Your task to perform on an android device: Clear the cart on target.com. Search for "corsair k70" on target.com, select the first entry, and add it to the cart. Image 0: 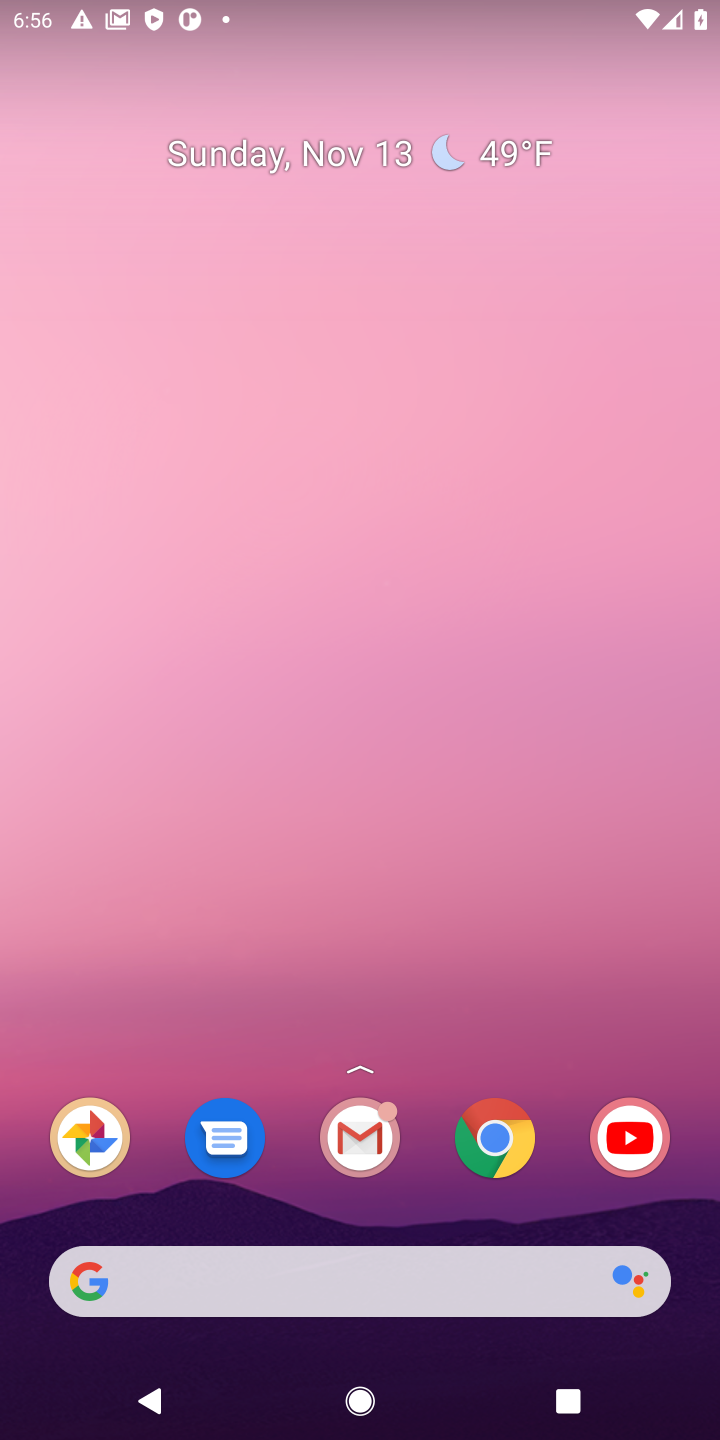
Step 0: drag from (390, 920) to (281, 336)
Your task to perform on an android device: Clear the cart on target.com. Search for "corsair k70" on target.com, select the first entry, and add it to the cart. Image 1: 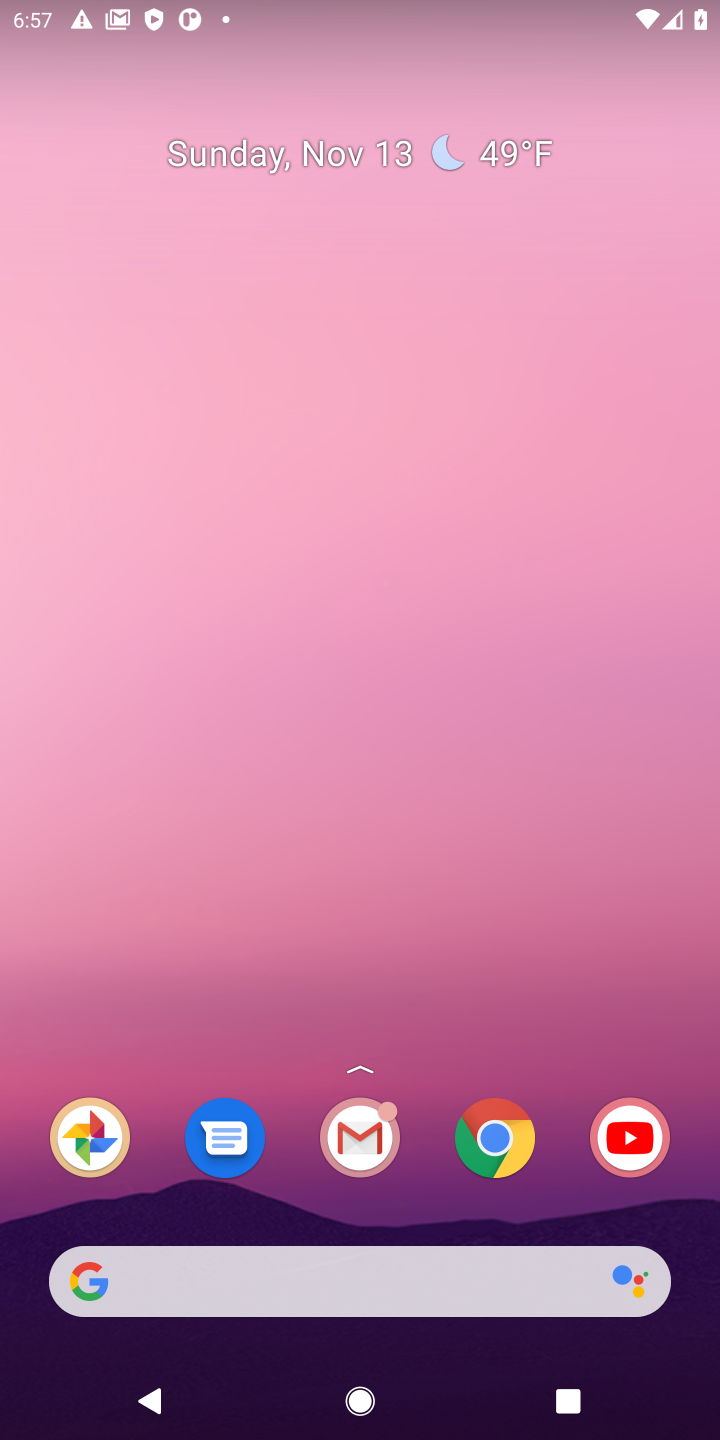
Step 1: drag from (478, 877) to (273, 2)
Your task to perform on an android device: Clear the cart on target.com. Search for "corsair k70" on target.com, select the first entry, and add it to the cart. Image 2: 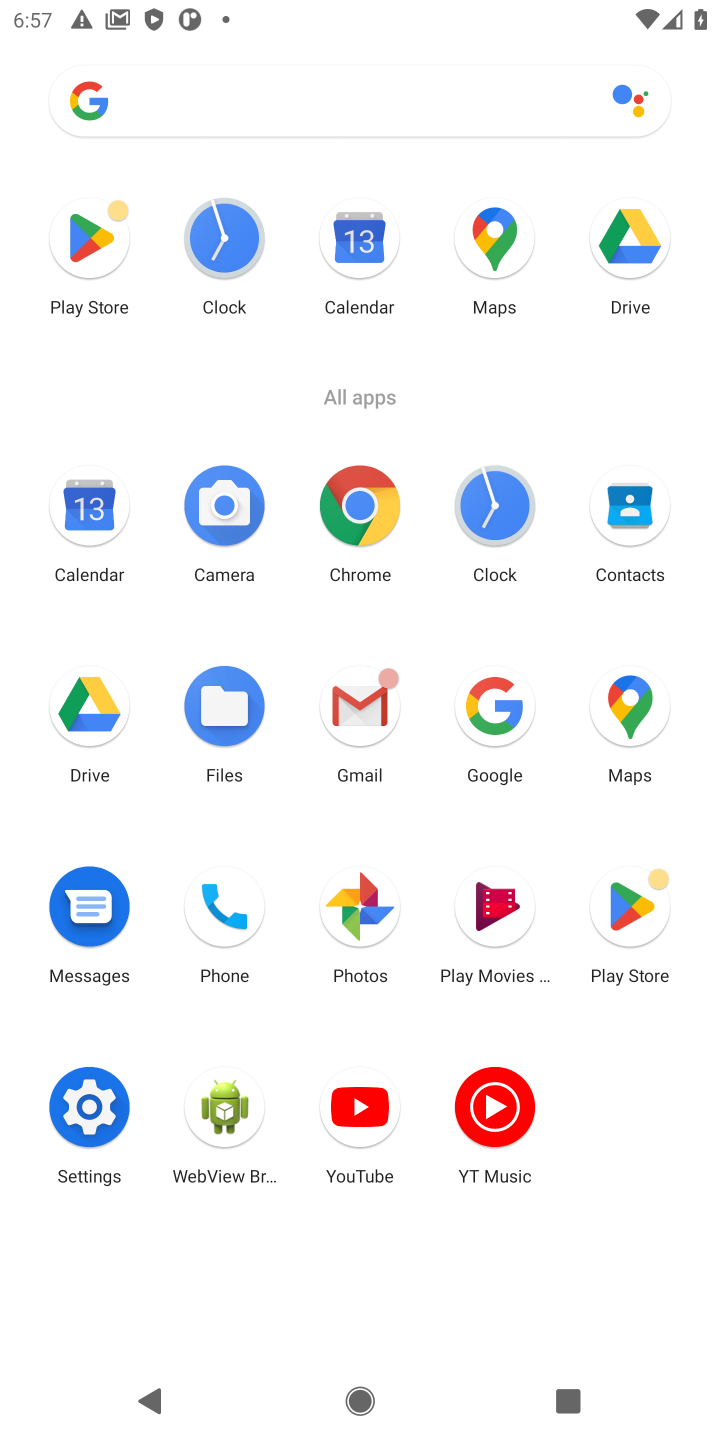
Step 2: click (343, 512)
Your task to perform on an android device: Clear the cart on target.com. Search for "corsair k70" on target.com, select the first entry, and add it to the cart. Image 3: 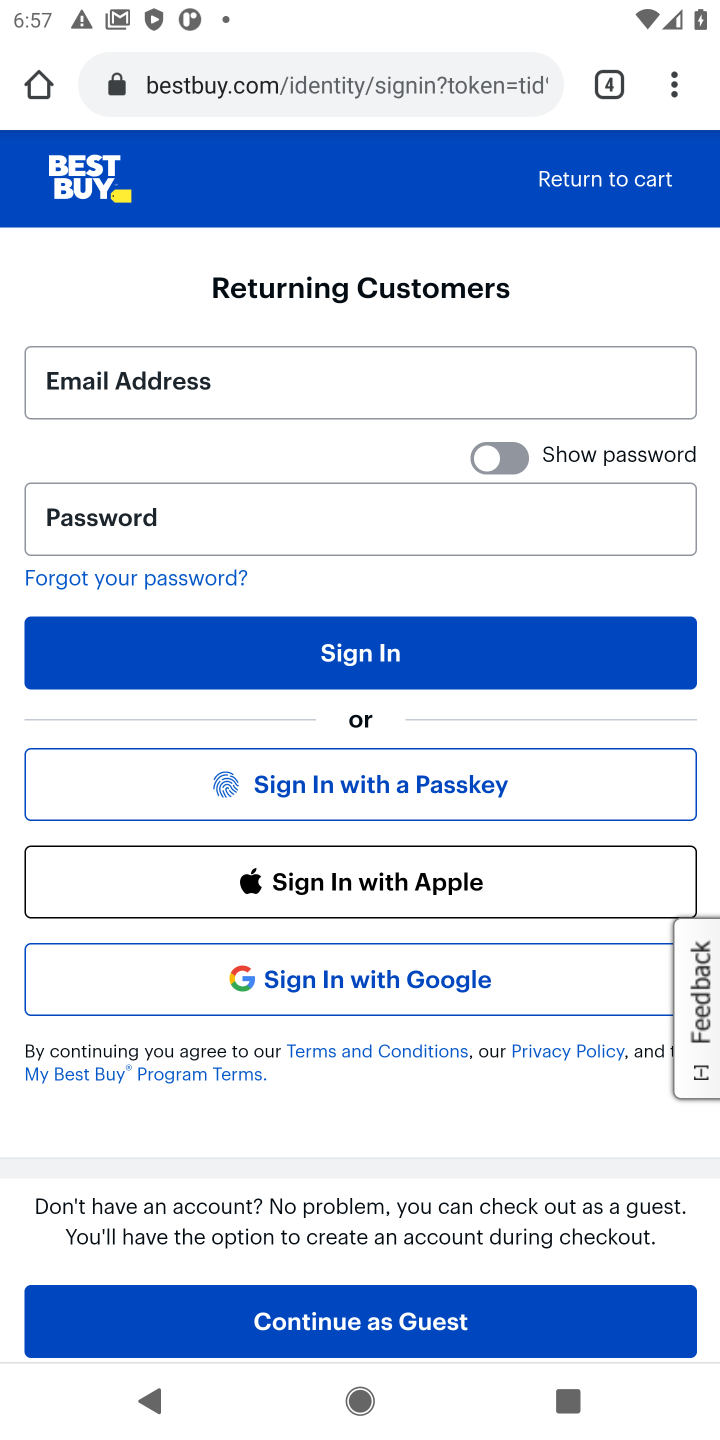
Step 3: click (369, 80)
Your task to perform on an android device: Clear the cart on target.com. Search for "corsair k70" on target.com, select the first entry, and add it to the cart. Image 4: 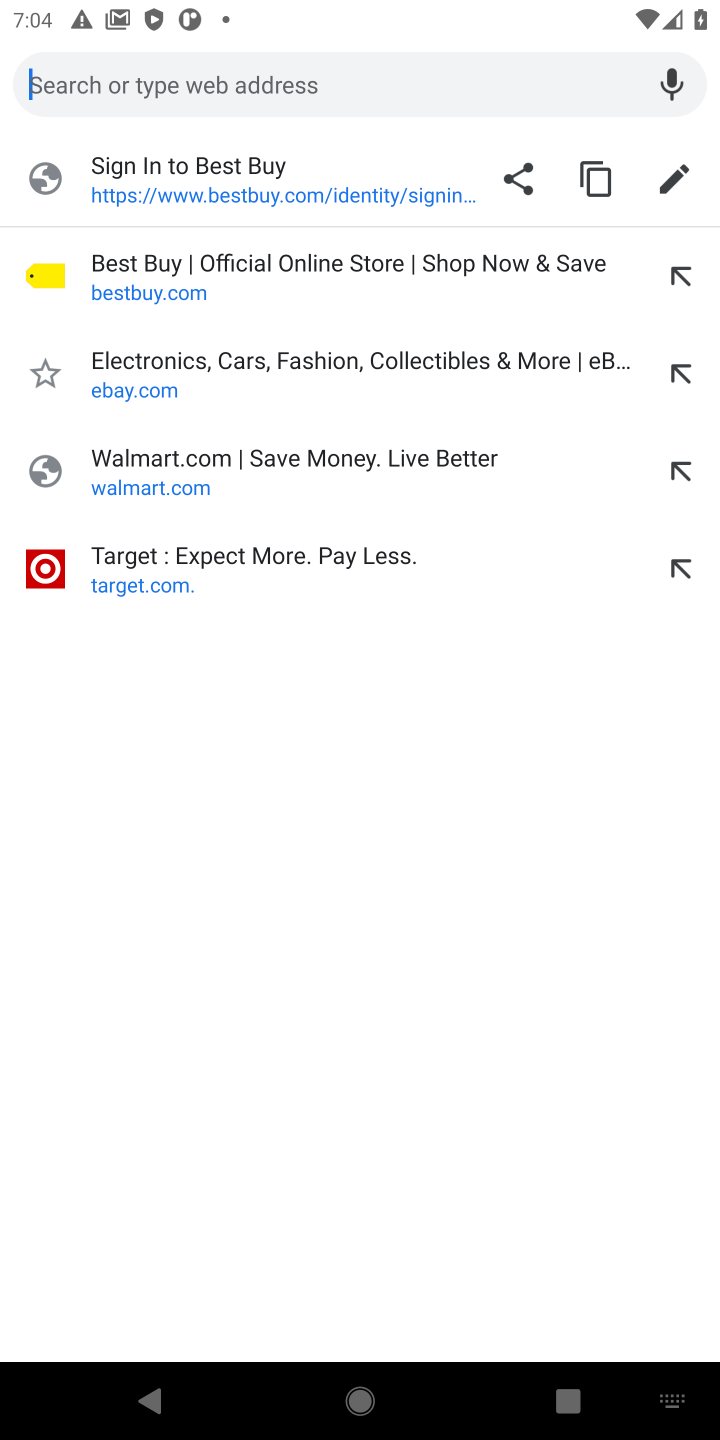
Step 4: press enter
Your task to perform on an android device: Clear the cart on target.com. Search for "corsair k70" on target.com, select the first entry, and add it to the cart. Image 5: 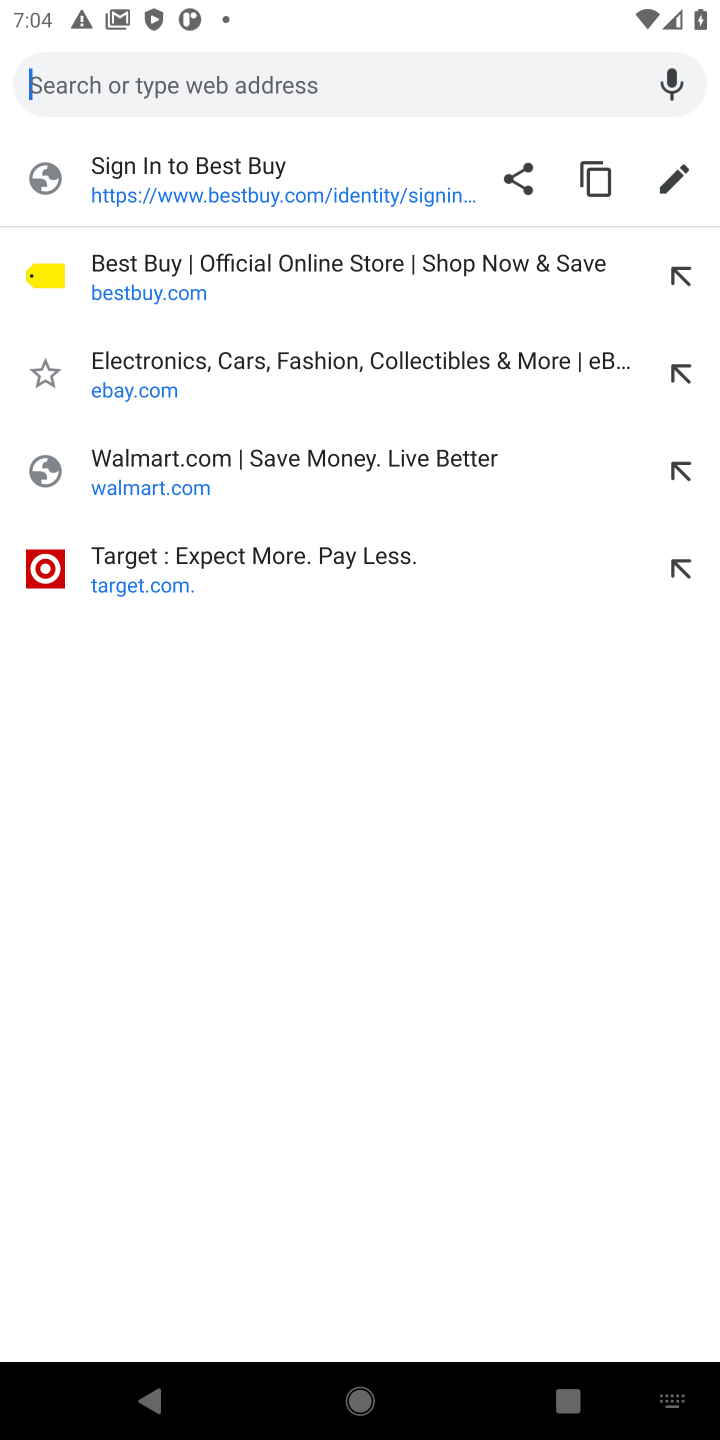
Step 5: type "target.com"
Your task to perform on an android device: Clear the cart on target.com. Search for "corsair k70" on target.com, select the first entry, and add it to the cart. Image 6: 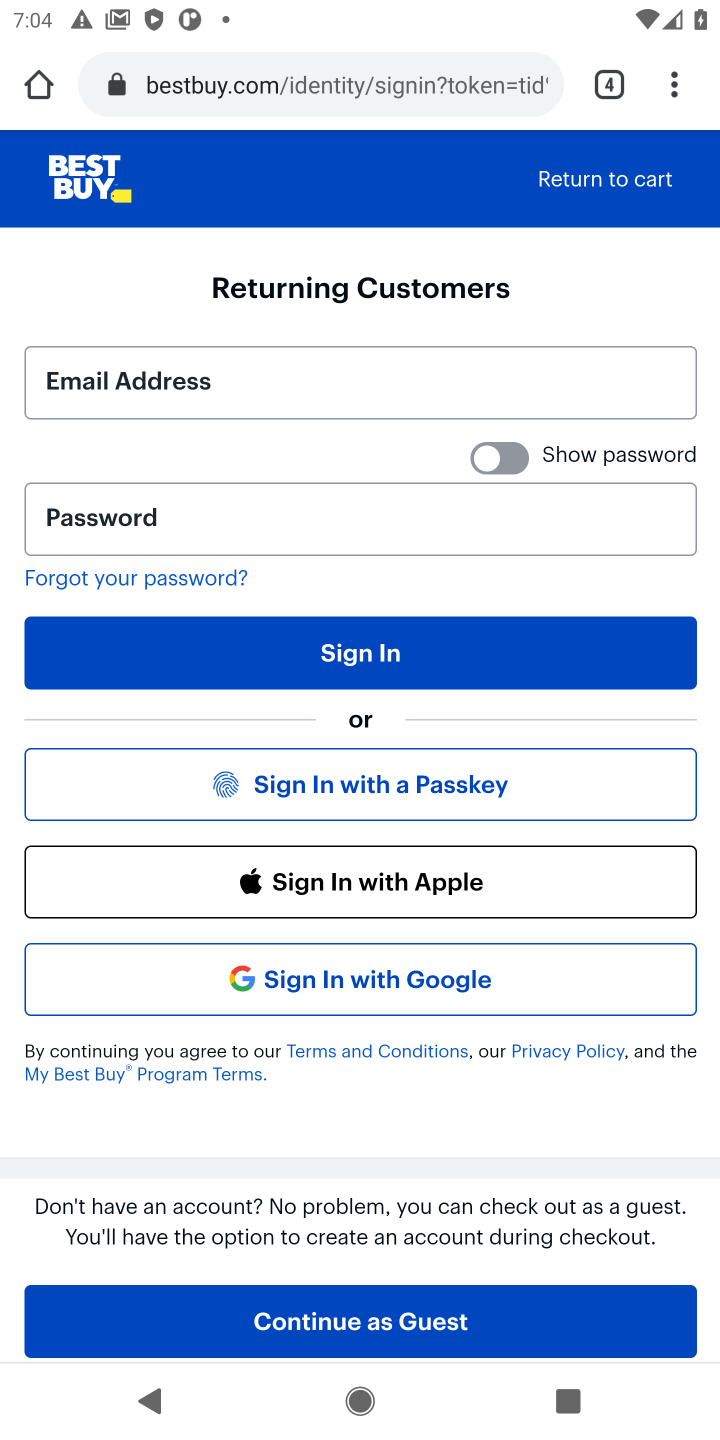
Step 6: click (348, 85)
Your task to perform on an android device: Clear the cart on target.com. Search for "corsair k70" on target.com, select the first entry, and add it to the cart. Image 7: 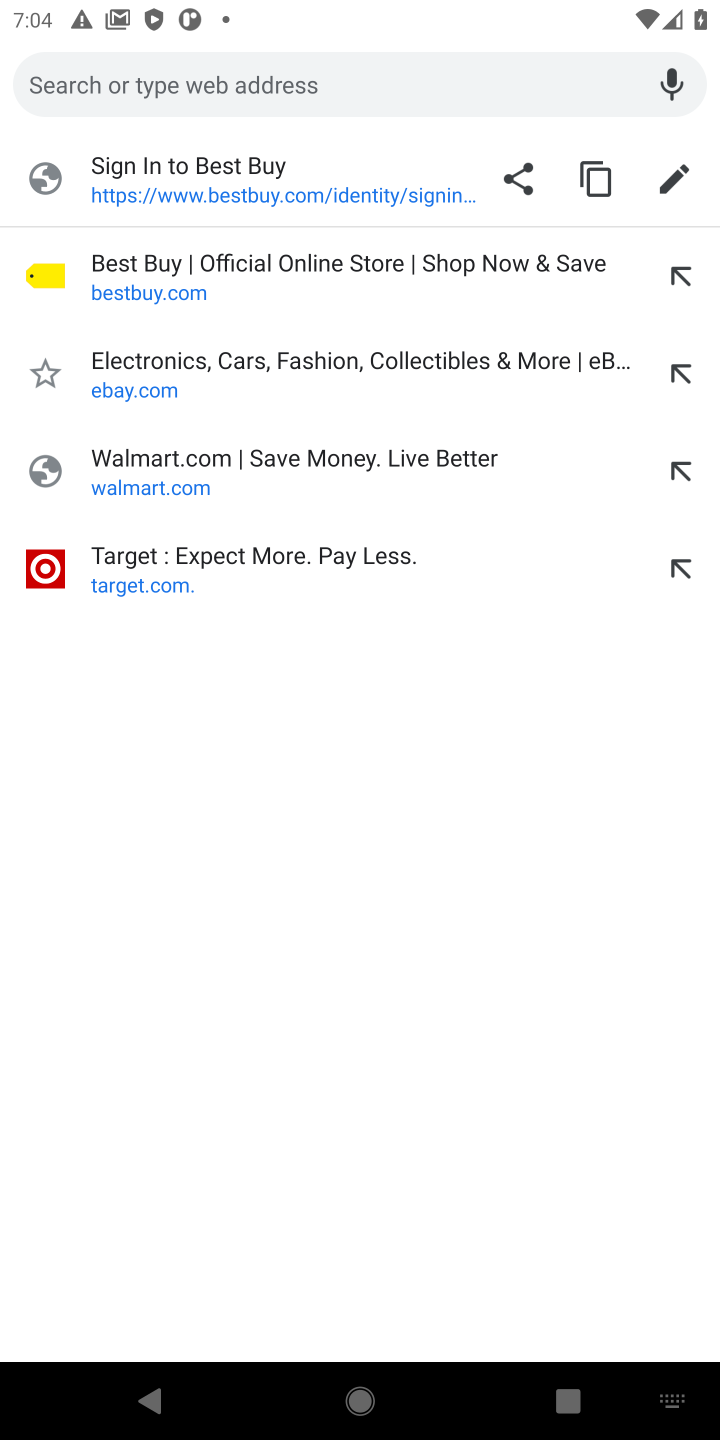
Step 7: type "target.com"
Your task to perform on an android device: Clear the cart on target.com. Search for "corsair k70" on target.com, select the first entry, and add it to the cart. Image 8: 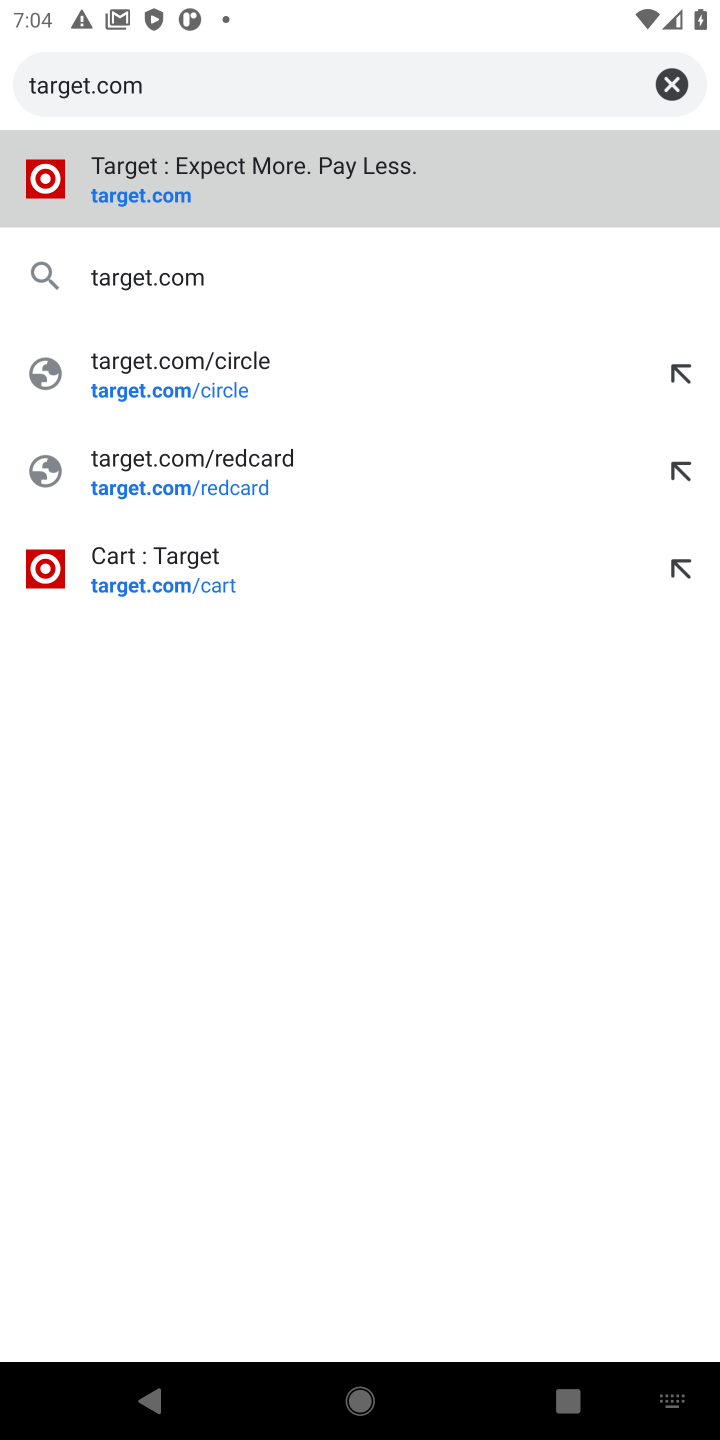
Step 8: press enter
Your task to perform on an android device: Clear the cart on target.com. Search for "corsair k70" on target.com, select the first entry, and add it to the cart. Image 9: 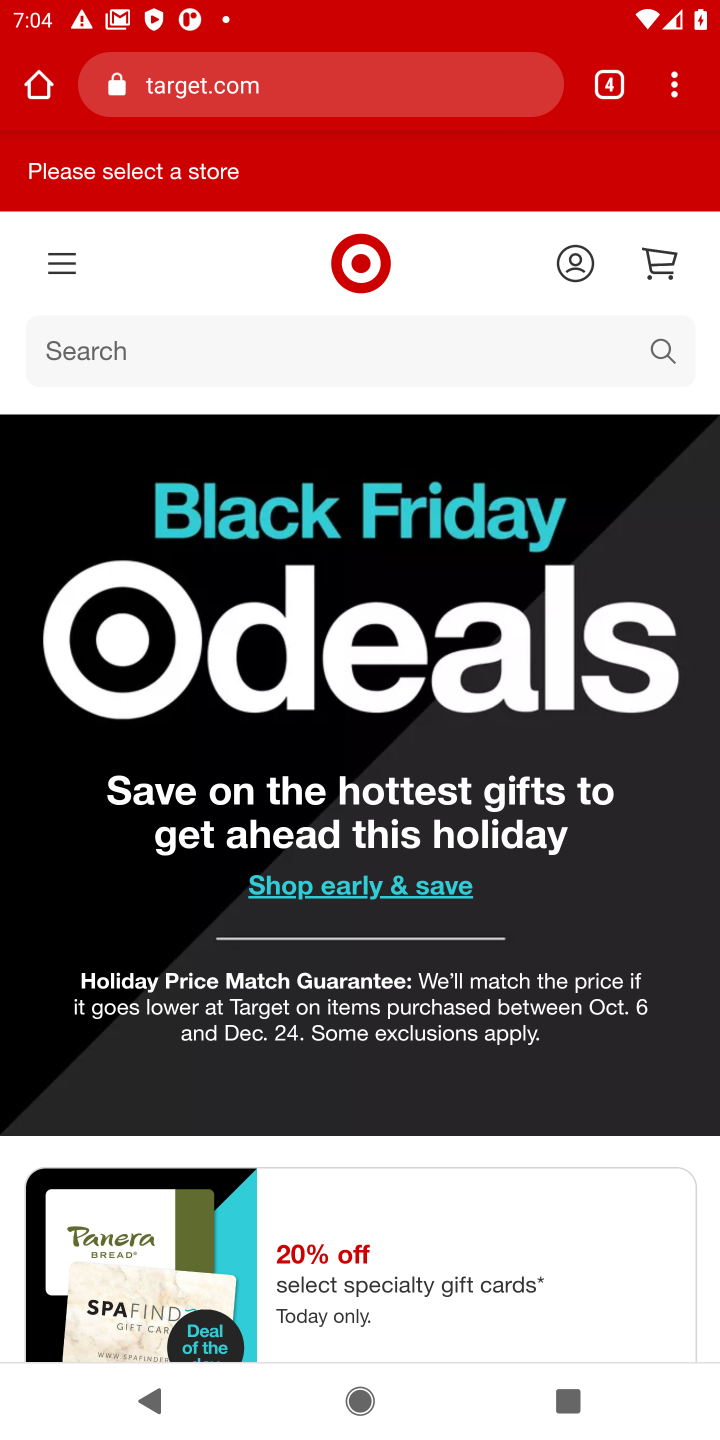
Step 9: click (104, 339)
Your task to perform on an android device: Clear the cart on target.com. Search for "corsair k70" on target.com, select the first entry, and add it to the cart. Image 10: 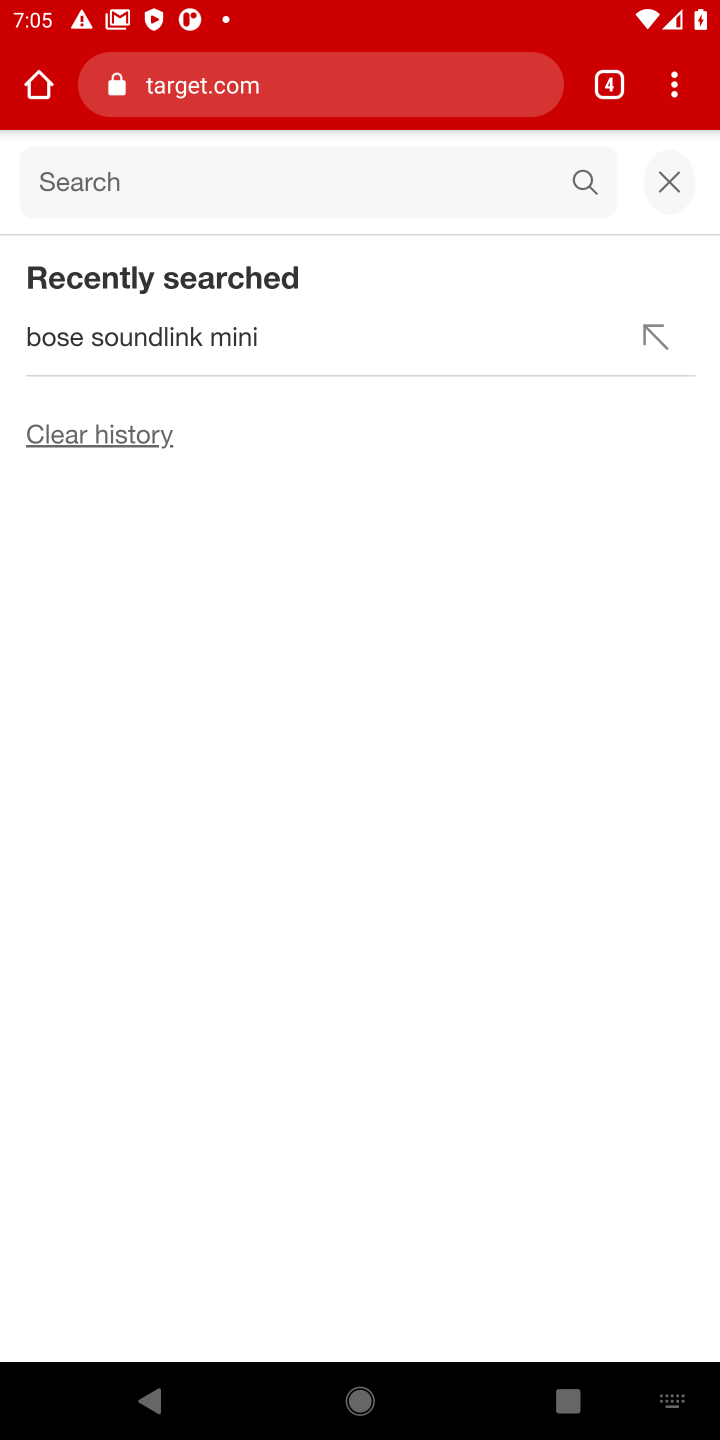
Step 10: type ""corsair k70""
Your task to perform on an android device: Clear the cart on target.com. Search for "corsair k70" on target.com, select the first entry, and add it to the cart. Image 11: 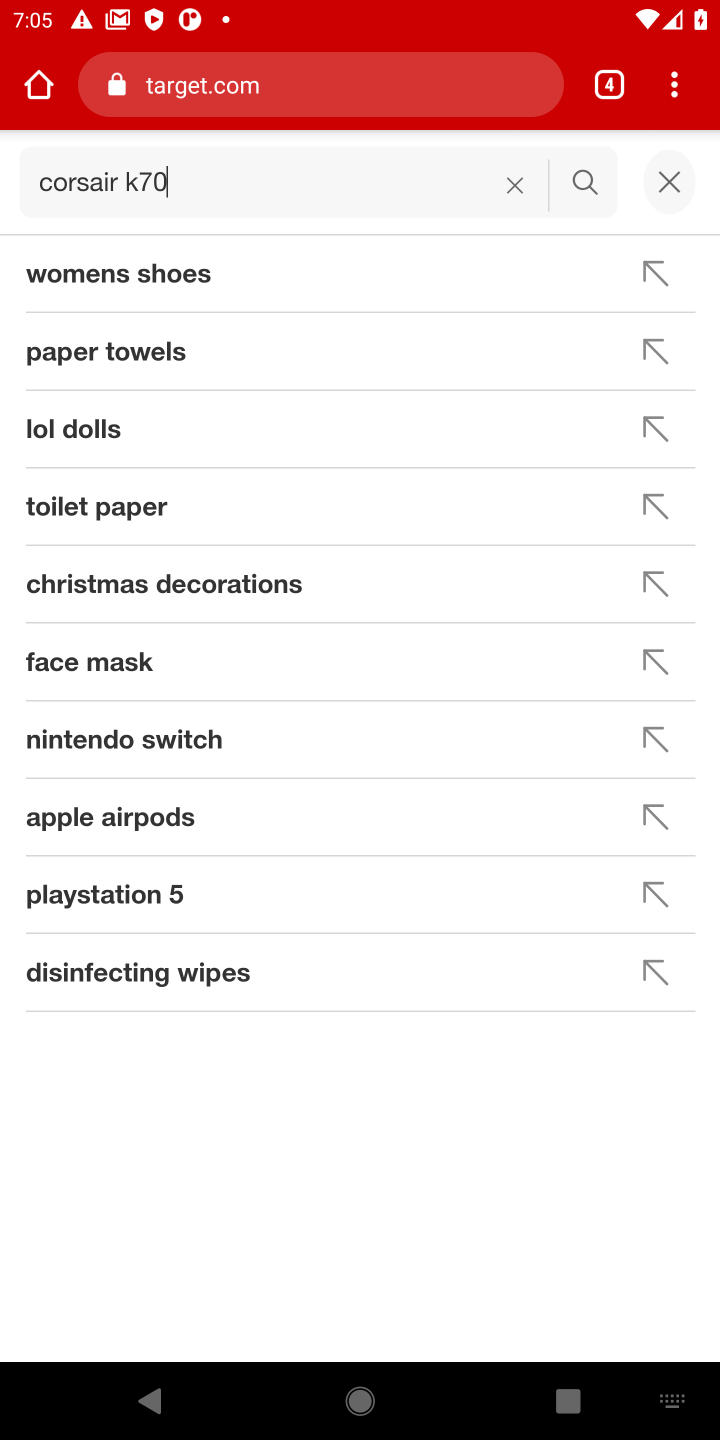
Step 11: press enter
Your task to perform on an android device: Clear the cart on target.com. Search for "corsair k70" on target.com, select the first entry, and add it to the cart. Image 12: 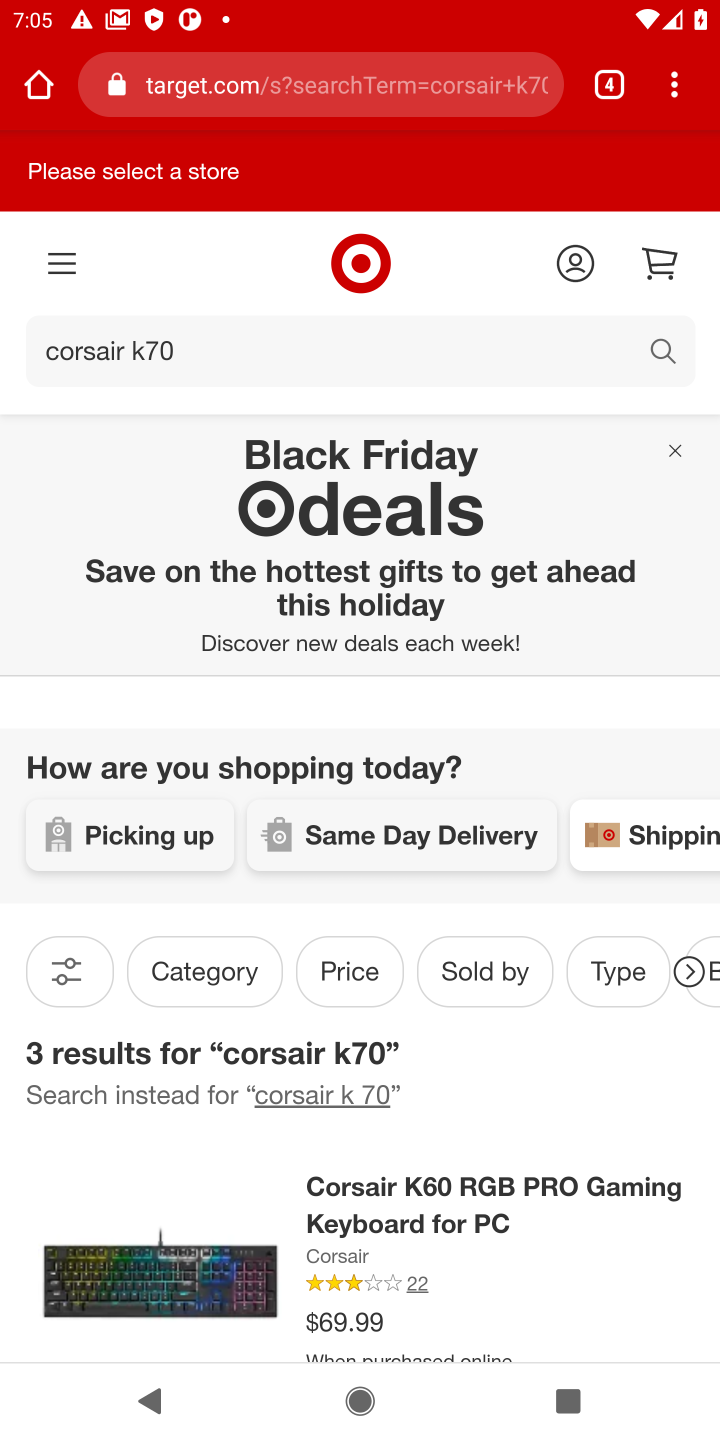
Step 12: task complete